Your task to perform on an android device: Go to ESPN.com Image 0: 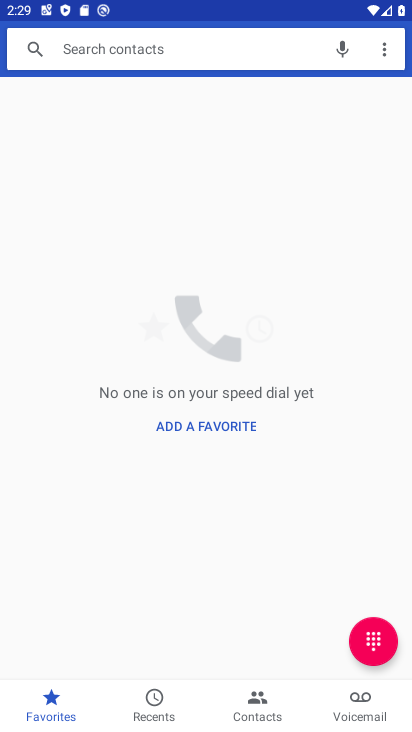
Step 0: press home button
Your task to perform on an android device: Go to ESPN.com Image 1: 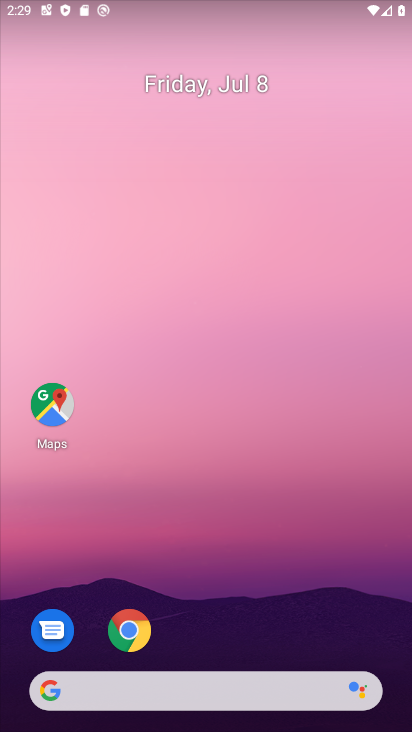
Step 1: drag from (270, 593) to (185, 15)
Your task to perform on an android device: Go to ESPN.com Image 2: 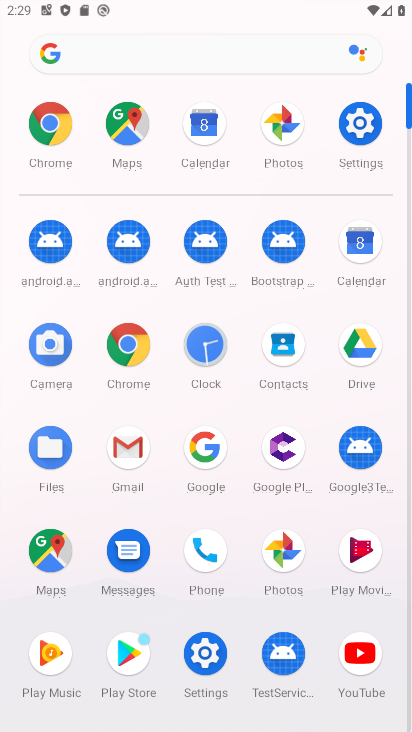
Step 2: click (148, 53)
Your task to perform on an android device: Go to ESPN.com Image 3: 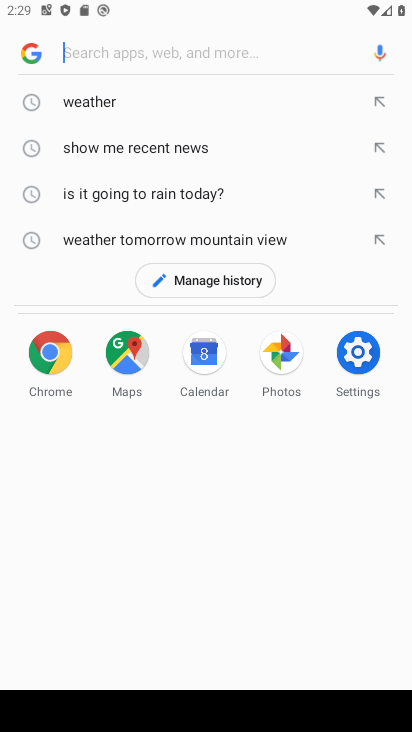
Step 3: type "espn.com"
Your task to perform on an android device: Go to ESPN.com Image 4: 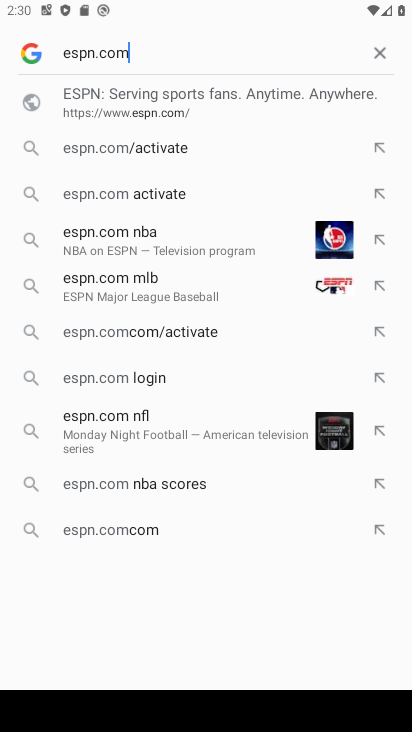
Step 4: click (237, 121)
Your task to perform on an android device: Go to ESPN.com Image 5: 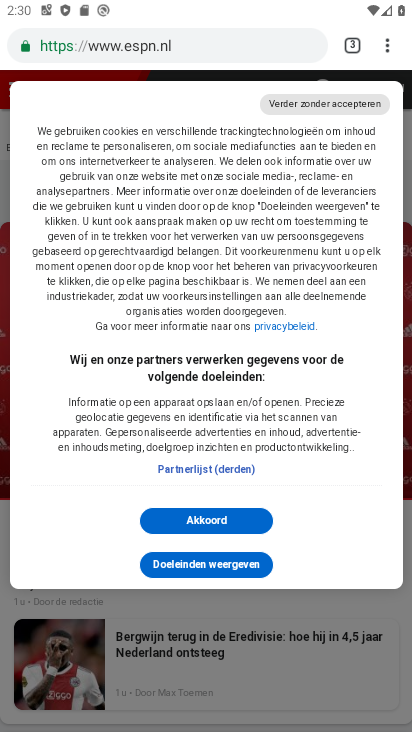
Step 5: click (213, 528)
Your task to perform on an android device: Go to ESPN.com Image 6: 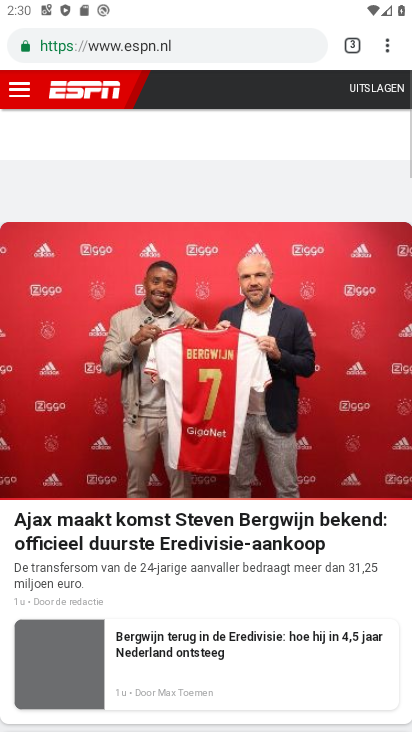
Step 6: task complete